Your task to perform on an android device: Open eBay Image 0: 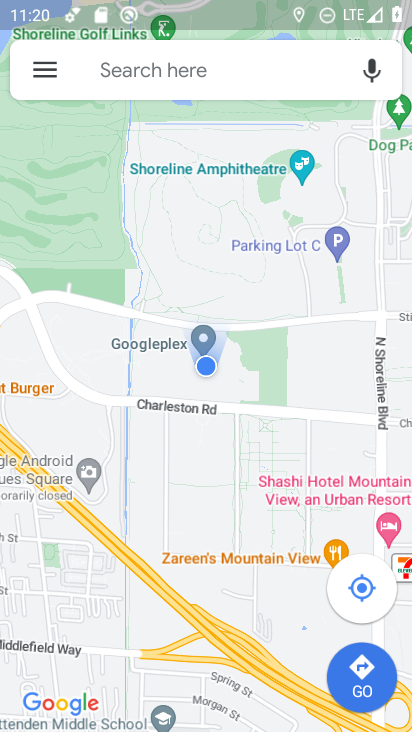
Step 0: press home button
Your task to perform on an android device: Open eBay Image 1: 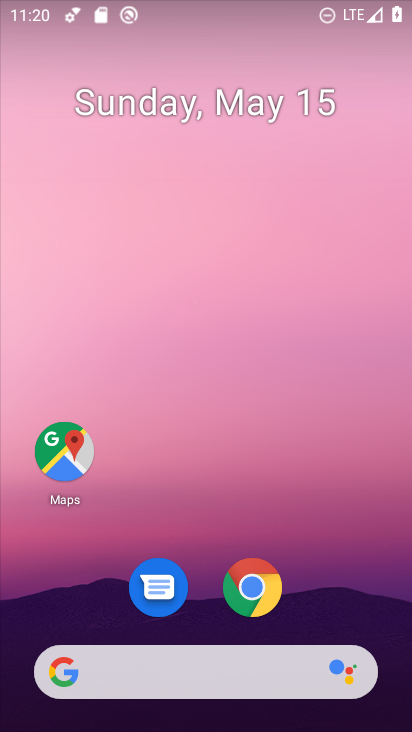
Step 1: click (266, 586)
Your task to perform on an android device: Open eBay Image 2: 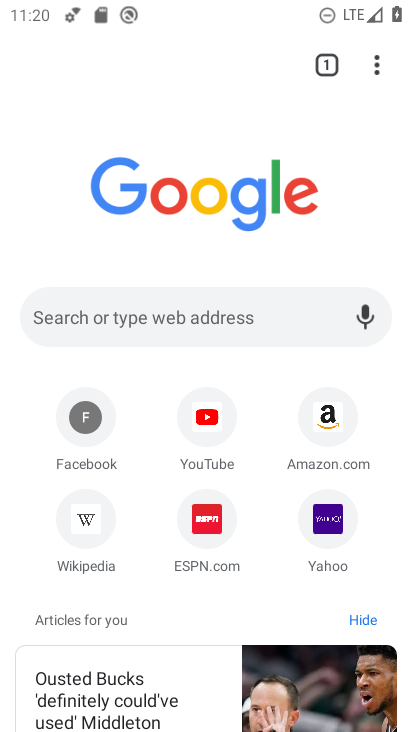
Step 2: click (169, 300)
Your task to perform on an android device: Open eBay Image 3: 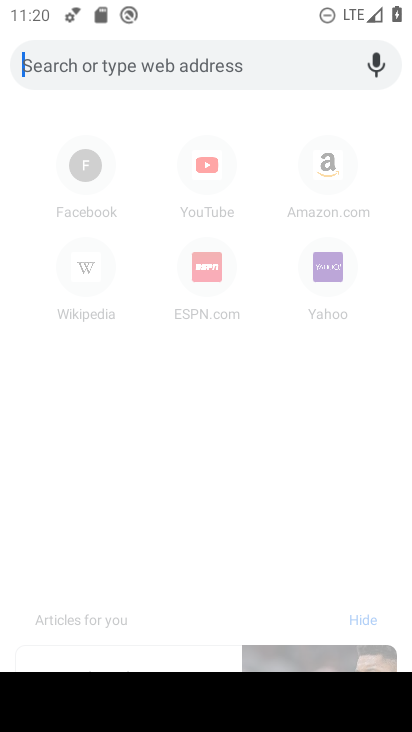
Step 3: type "eBay"
Your task to perform on an android device: Open eBay Image 4: 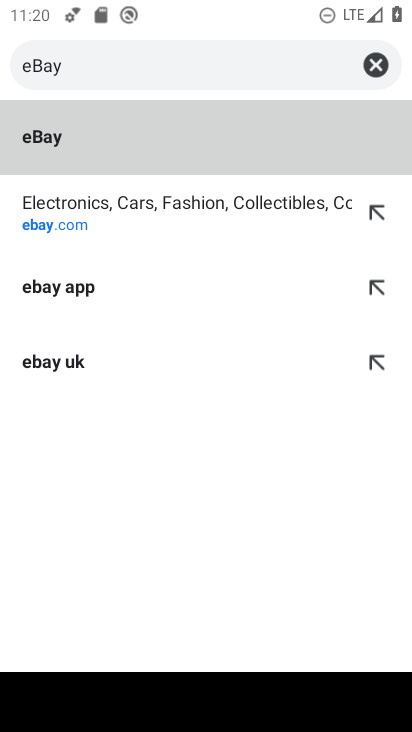
Step 4: click (85, 147)
Your task to perform on an android device: Open eBay Image 5: 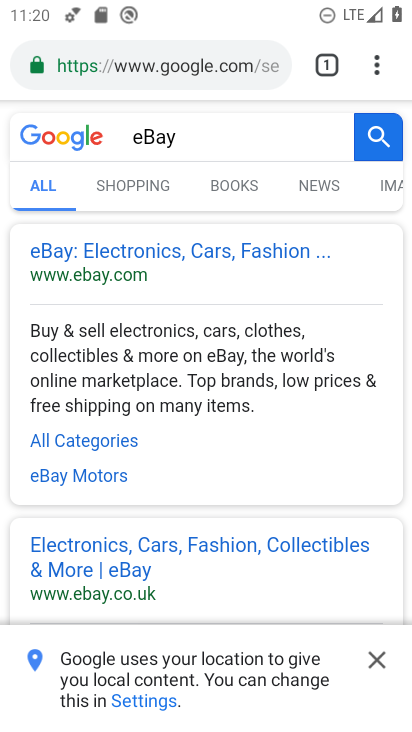
Step 5: click (114, 249)
Your task to perform on an android device: Open eBay Image 6: 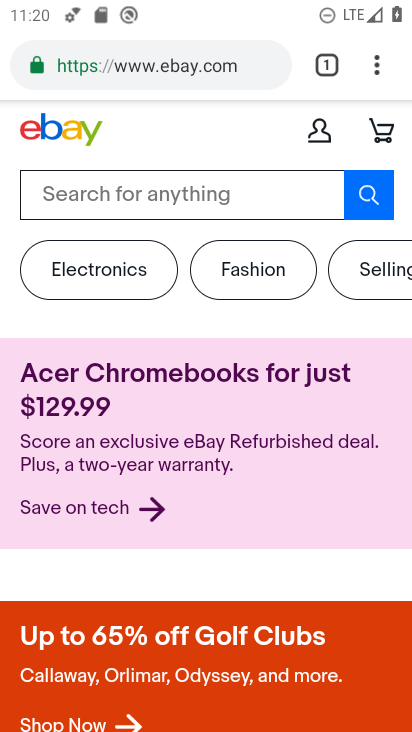
Step 6: task complete